Your task to perform on an android device: What time is it in London? Image 0: 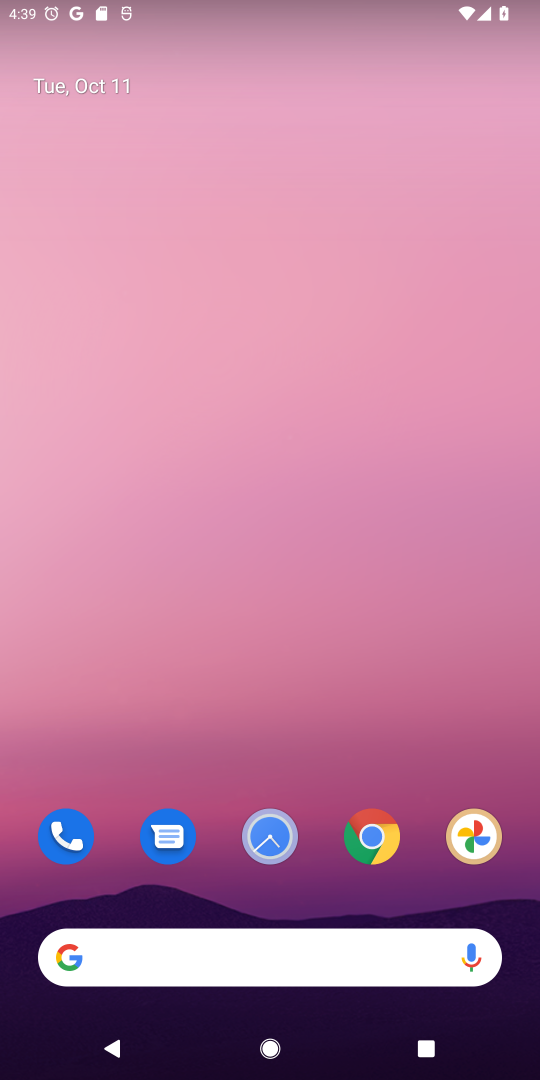
Step 0: click (247, 944)
Your task to perform on an android device: What time is it in London? Image 1: 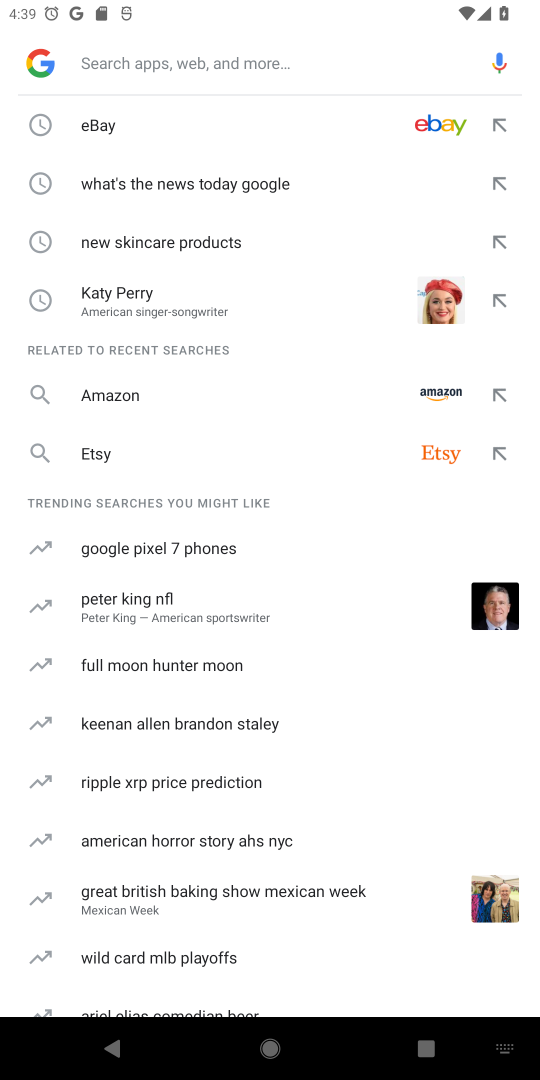
Step 1: type "What time is it in London?"
Your task to perform on an android device: What time is it in London? Image 2: 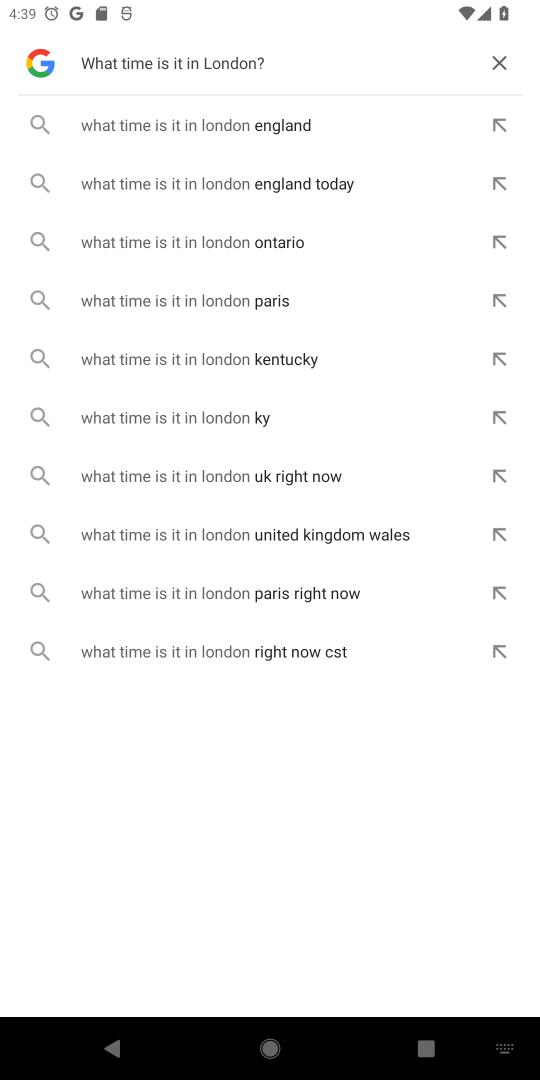
Step 2: click (176, 140)
Your task to perform on an android device: What time is it in London? Image 3: 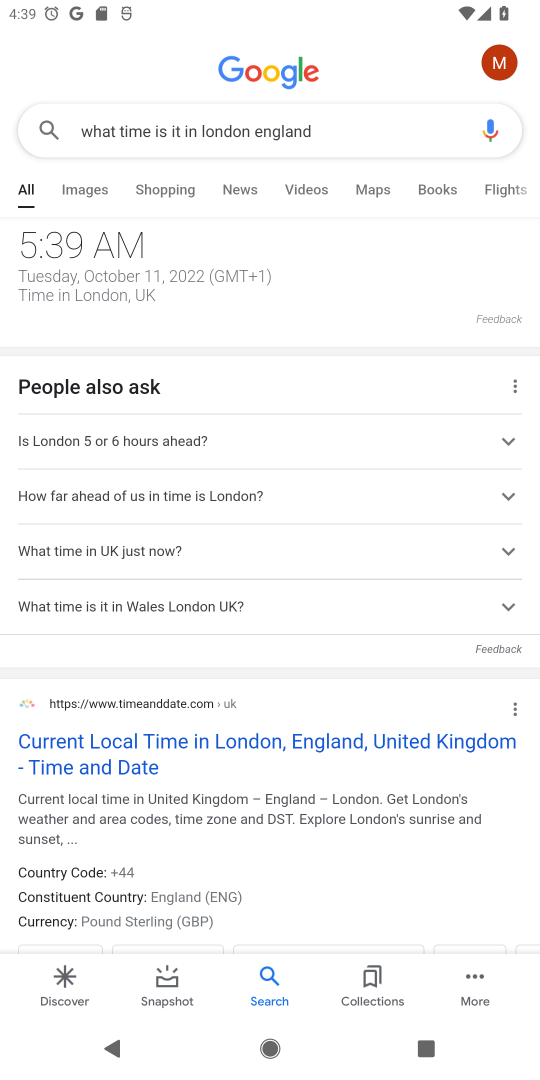
Step 3: task complete